Your task to perform on an android device: clear all cookies in the chrome app Image 0: 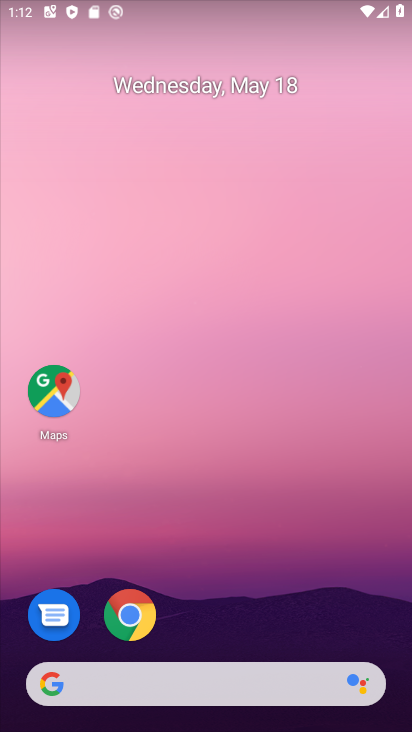
Step 0: drag from (334, 621) to (289, 109)
Your task to perform on an android device: clear all cookies in the chrome app Image 1: 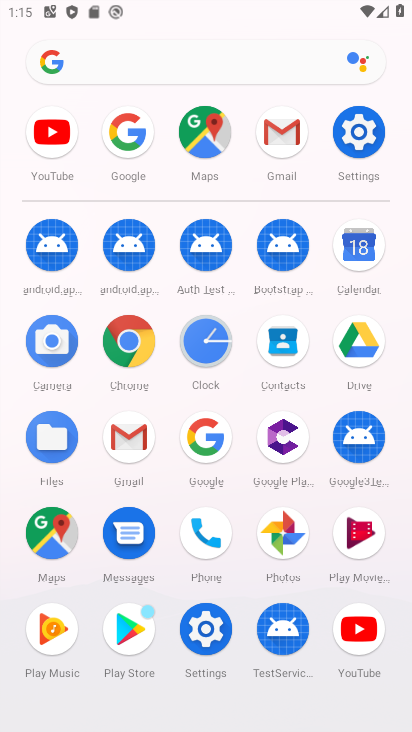
Step 1: click (135, 358)
Your task to perform on an android device: clear all cookies in the chrome app Image 2: 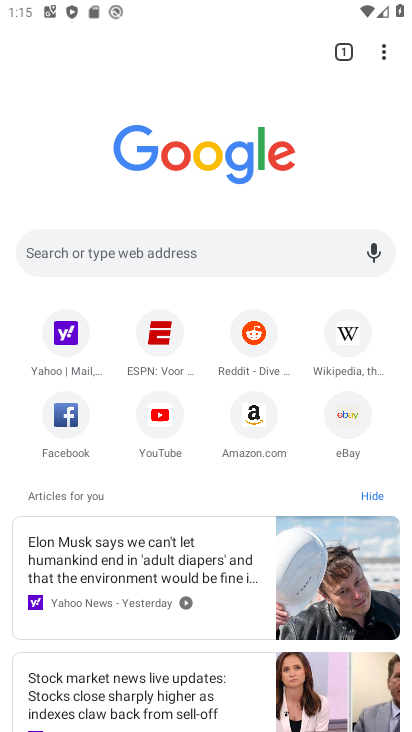
Step 2: click (382, 52)
Your task to perform on an android device: clear all cookies in the chrome app Image 3: 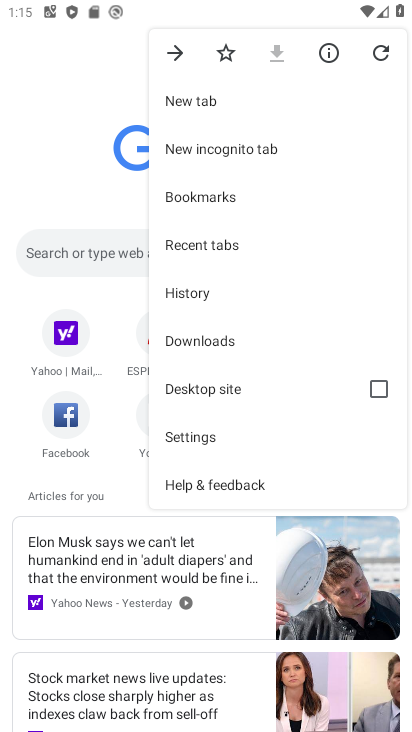
Step 3: click (184, 307)
Your task to perform on an android device: clear all cookies in the chrome app Image 4: 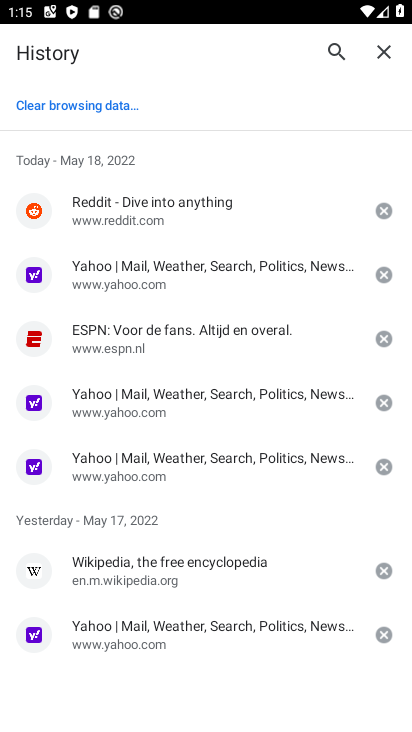
Step 4: click (71, 96)
Your task to perform on an android device: clear all cookies in the chrome app Image 5: 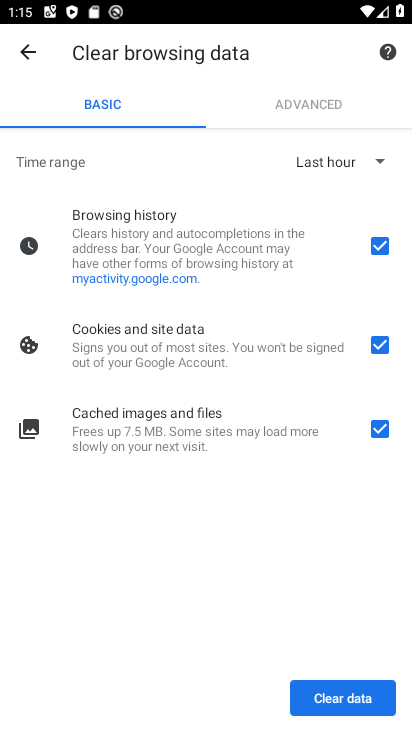
Step 5: click (358, 700)
Your task to perform on an android device: clear all cookies in the chrome app Image 6: 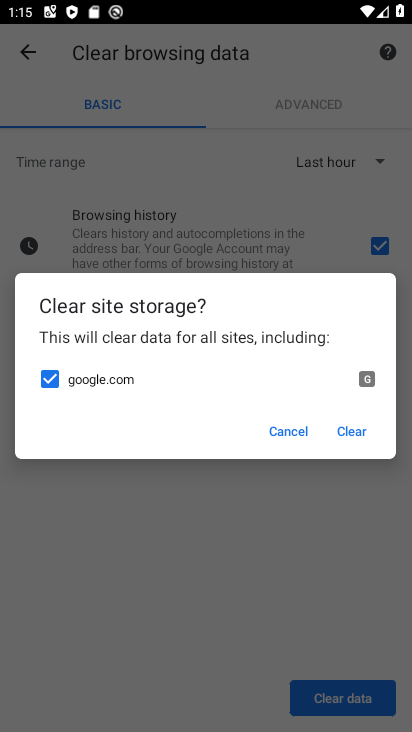
Step 6: click (338, 429)
Your task to perform on an android device: clear all cookies in the chrome app Image 7: 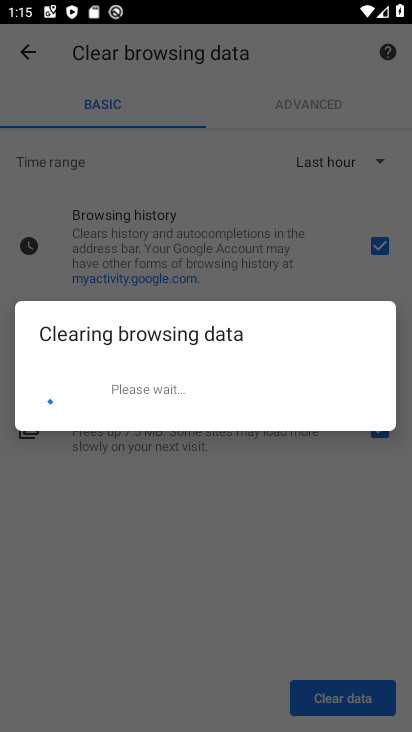
Step 7: task complete